Your task to perform on an android device: snooze an email in the gmail app Image 0: 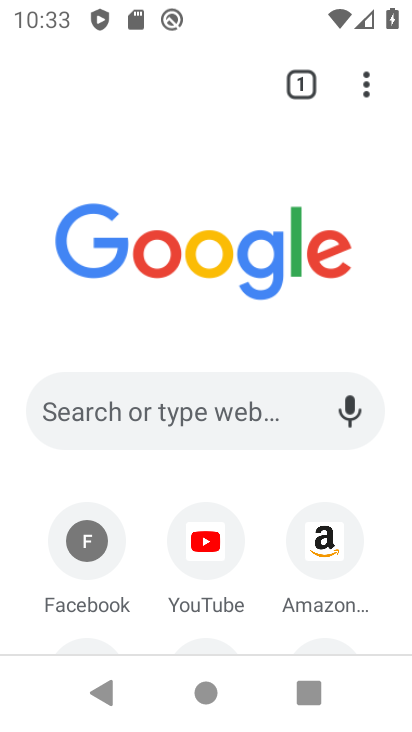
Step 0: click (369, 90)
Your task to perform on an android device: snooze an email in the gmail app Image 1: 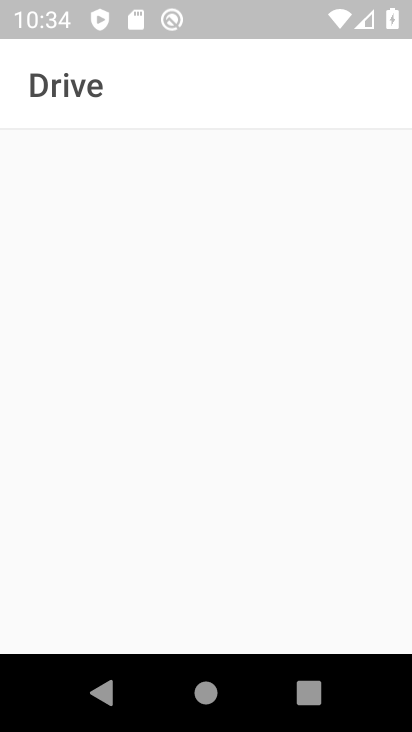
Step 1: press home button
Your task to perform on an android device: snooze an email in the gmail app Image 2: 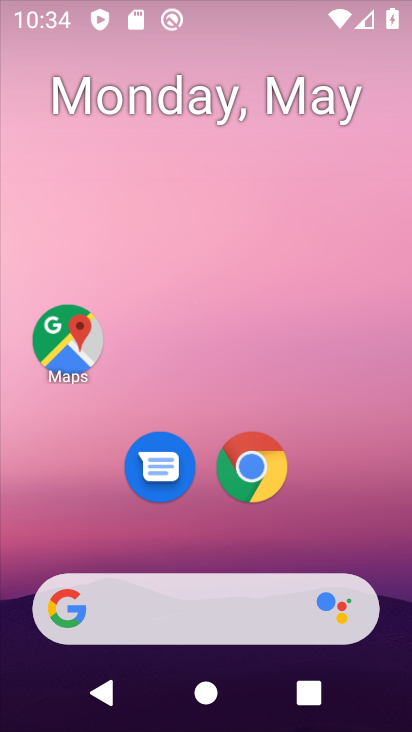
Step 2: drag from (154, 730) to (170, 57)
Your task to perform on an android device: snooze an email in the gmail app Image 3: 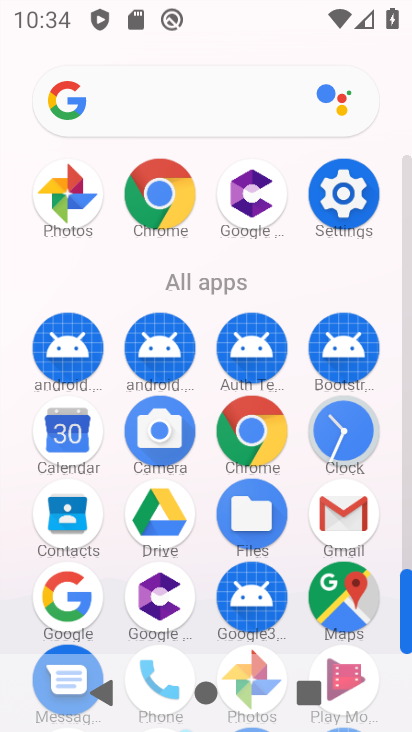
Step 3: click (335, 521)
Your task to perform on an android device: snooze an email in the gmail app Image 4: 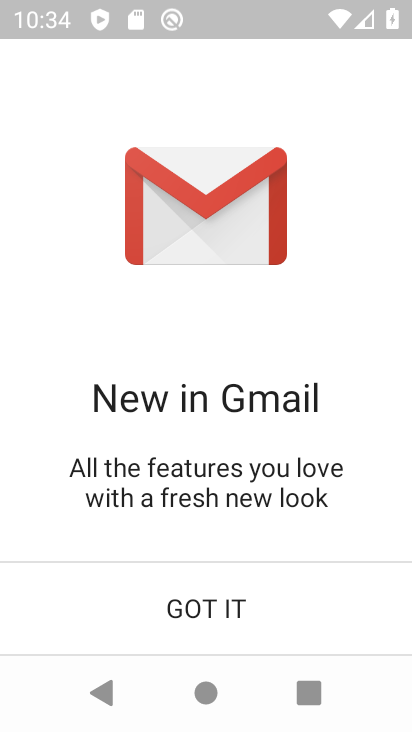
Step 4: click (206, 621)
Your task to perform on an android device: snooze an email in the gmail app Image 5: 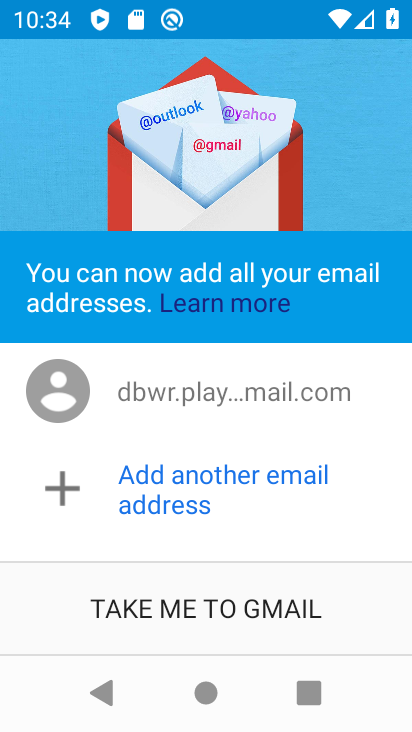
Step 5: click (204, 621)
Your task to perform on an android device: snooze an email in the gmail app Image 6: 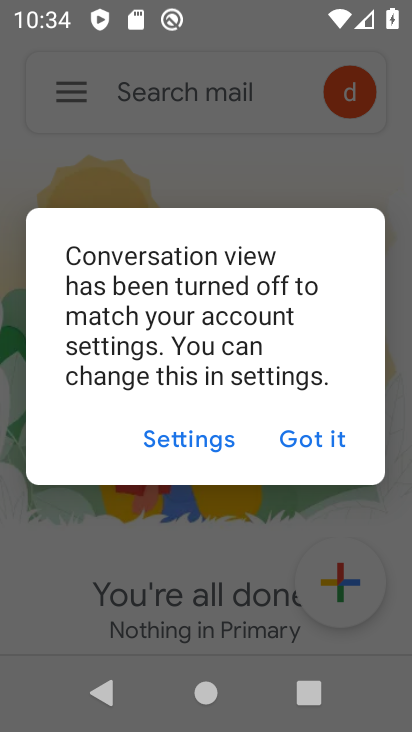
Step 6: click (308, 441)
Your task to perform on an android device: snooze an email in the gmail app Image 7: 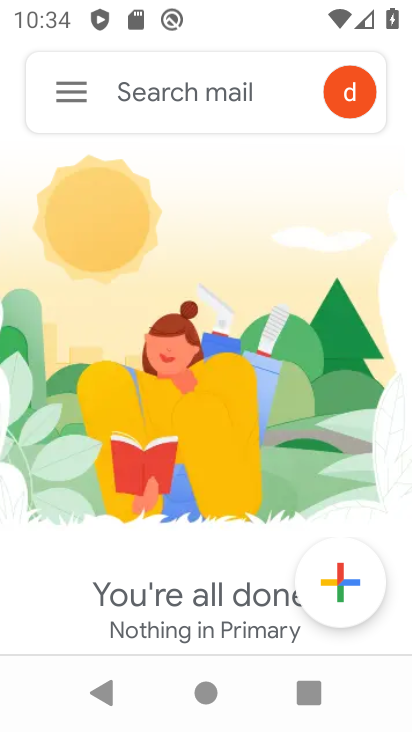
Step 7: click (61, 103)
Your task to perform on an android device: snooze an email in the gmail app Image 8: 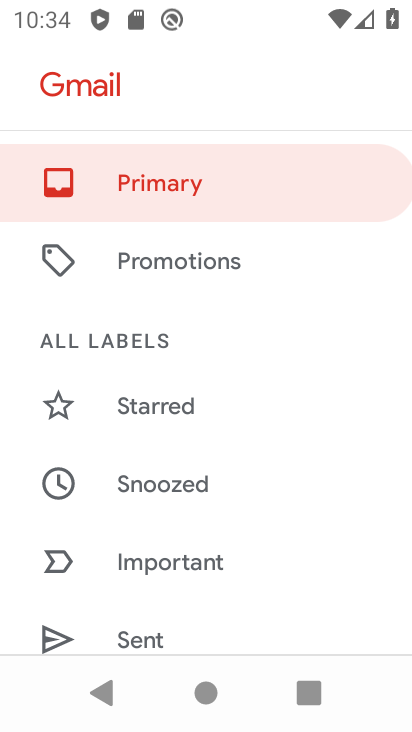
Step 8: drag from (236, 619) to (271, 282)
Your task to perform on an android device: snooze an email in the gmail app Image 9: 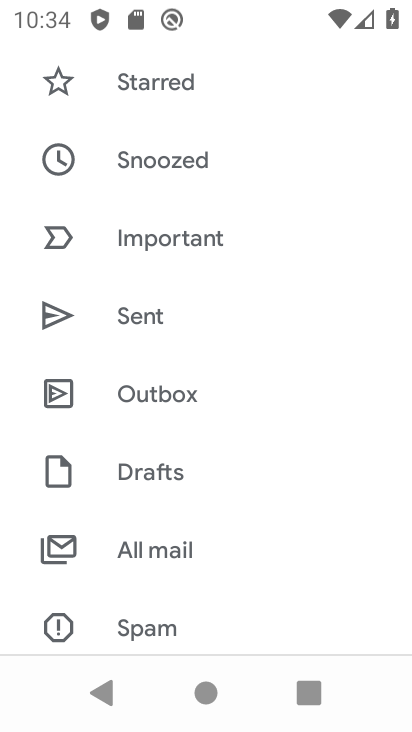
Step 9: click (153, 551)
Your task to perform on an android device: snooze an email in the gmail app Image 10: 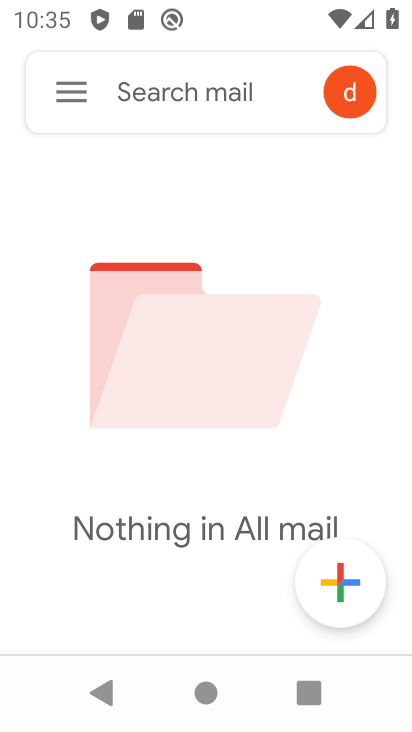
Step 10: task complete